Your task to perform on an android device: all mails in gmail Image 0: 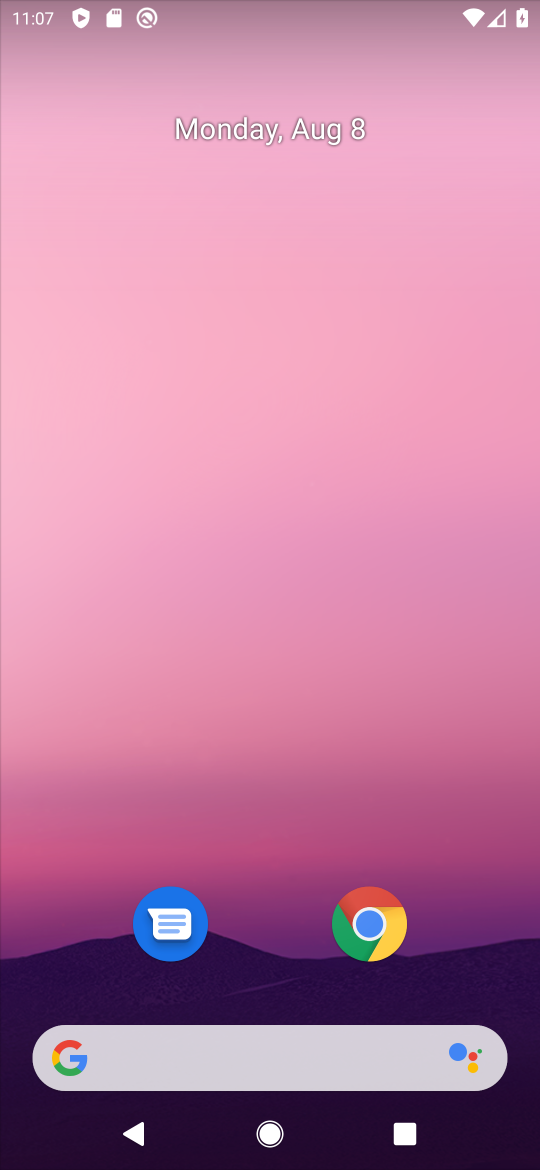
Step 0: drag from (304, 995) to (391, 19)
Your task to perform on an android device: all mails in gmail Image 1: 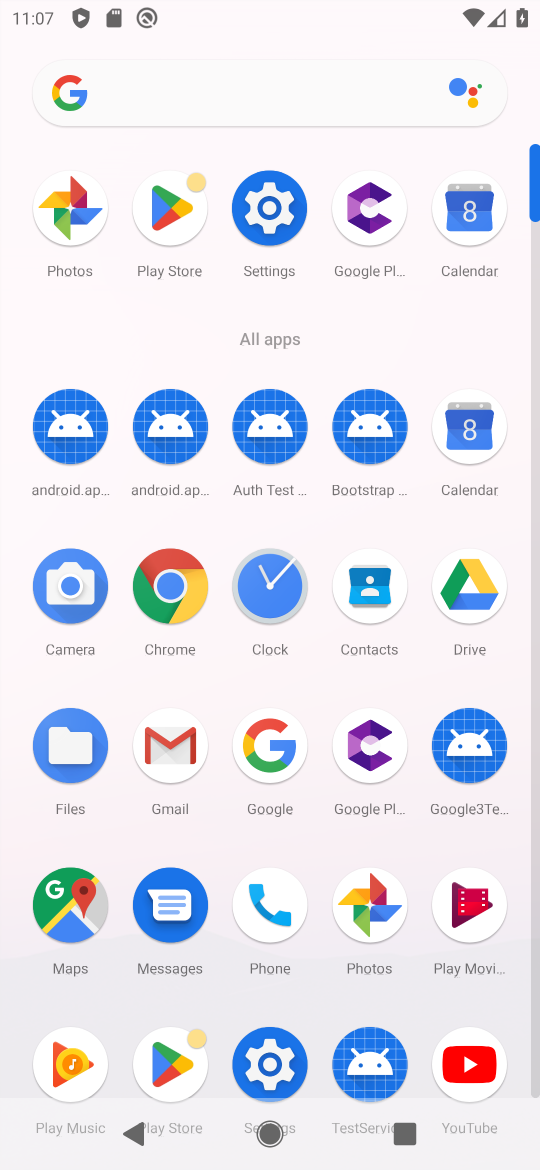
Step 1: click (168, 743)
Your task to perform on an android device: all mails in gmail Image 2: 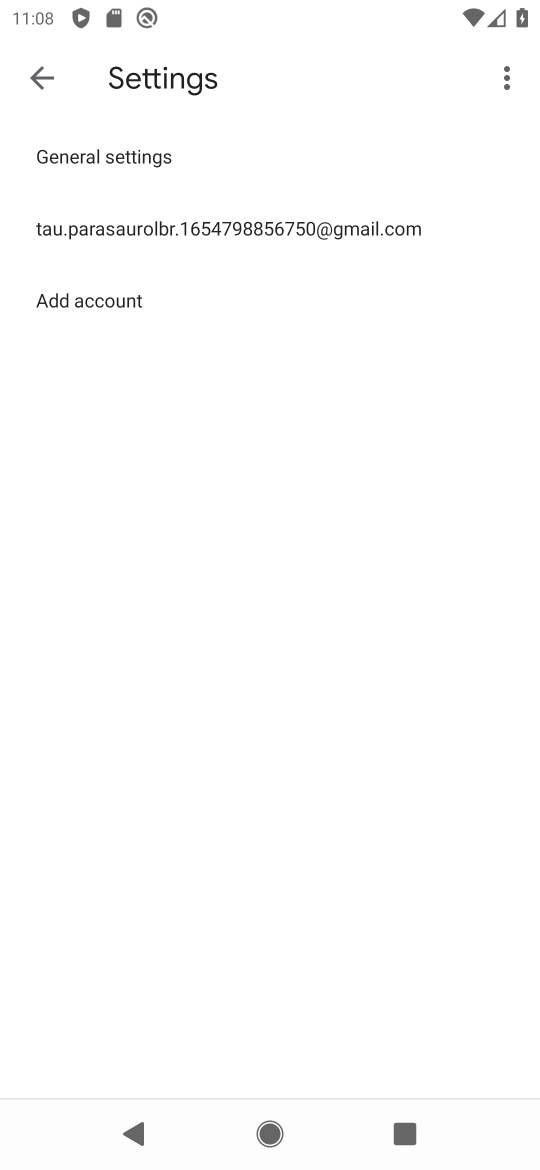
Step 2: click (47, 90)
Your task to perform on an android device: all mails in gmail Image 3: 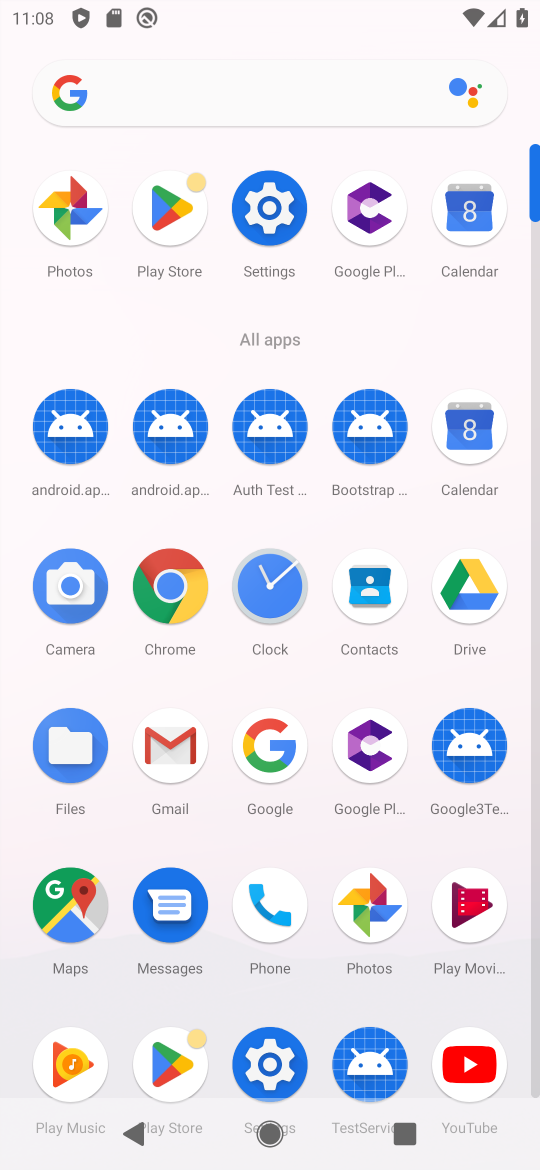
Step 3: click (176, 725)
Your task to perform on an android device: all mails in gmail Image 4: 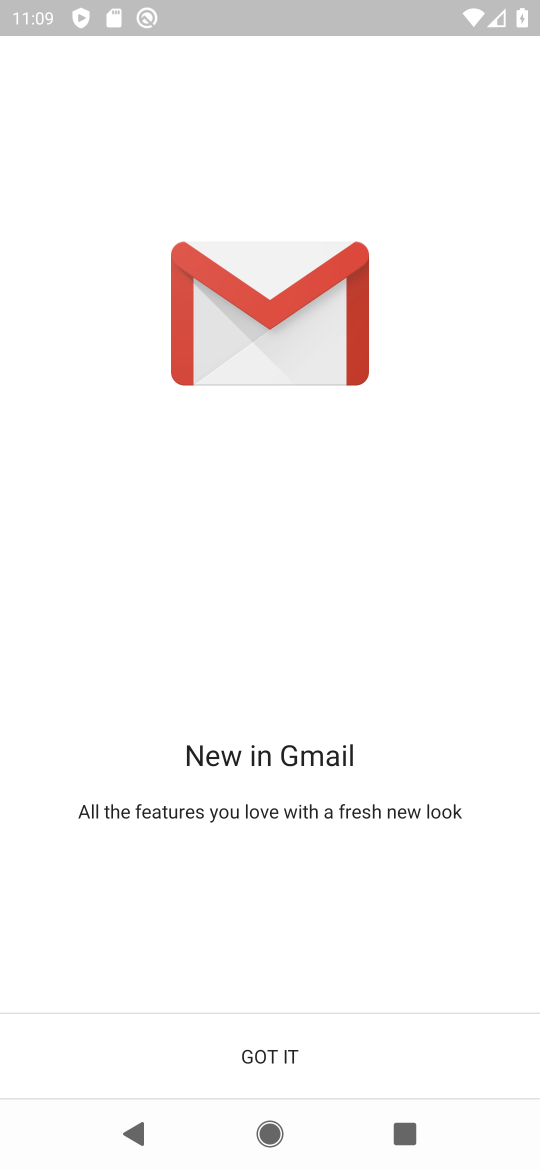
Step 4: click (357, 1050)
Your task to perform on an android device: all mails in gmail Image 5: 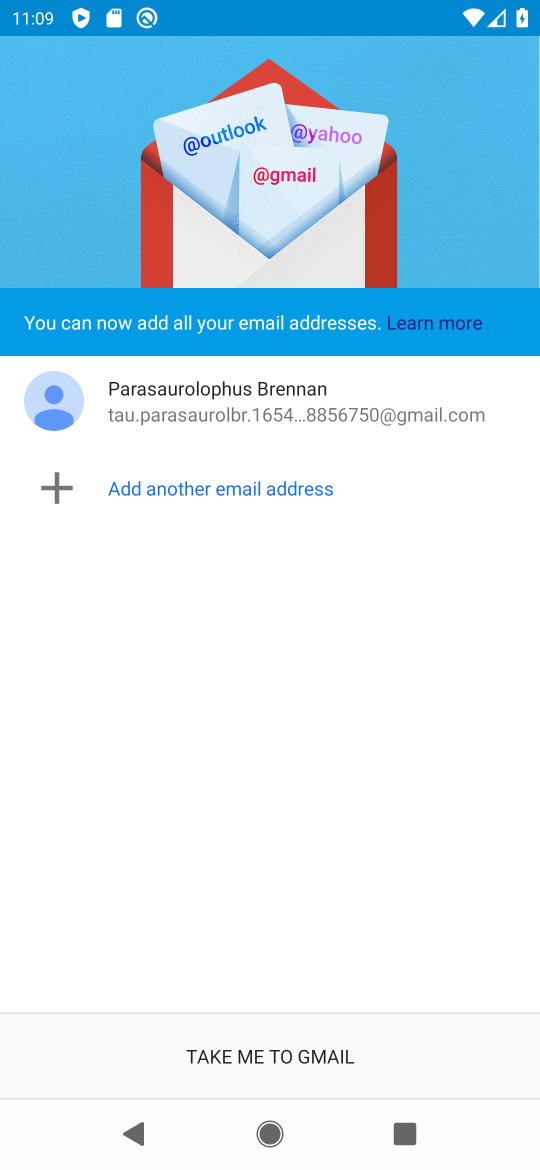
Step 5: click (357, 1050)
Your task to perform on an android device: all mails in gmail Image 6: 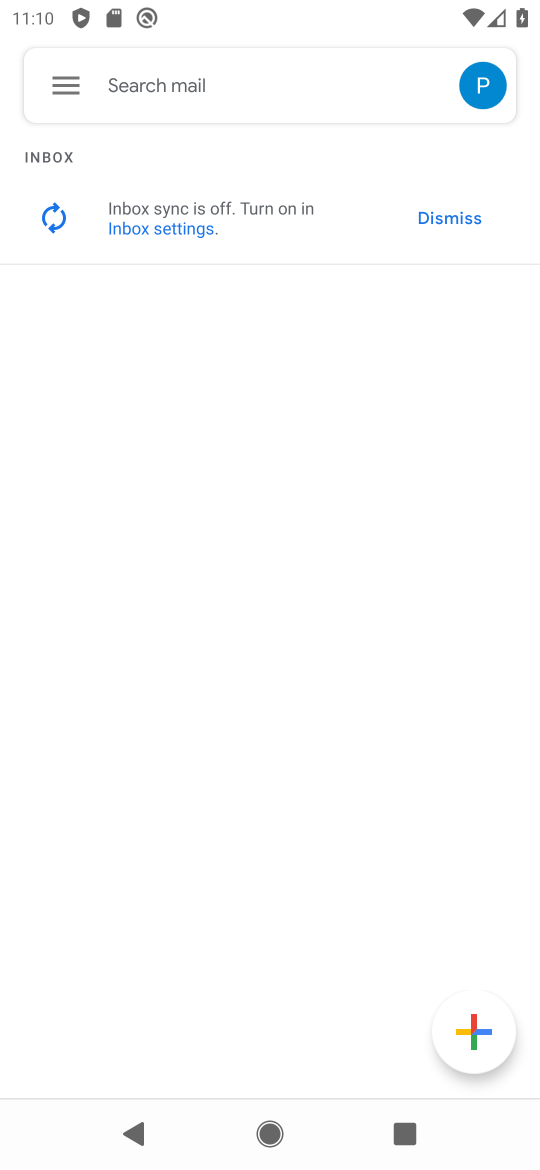
Step 6: task complete